Your task to perform on an android device: check out phone information Image 0: 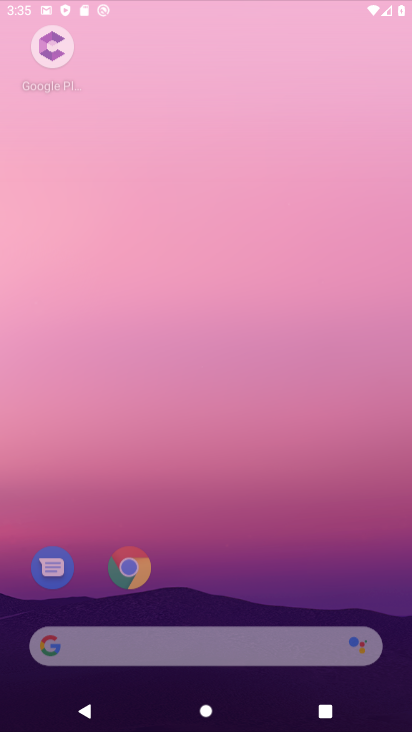
Step 0: press home button
Your task to perform on an android device: check out phone information Image 1: 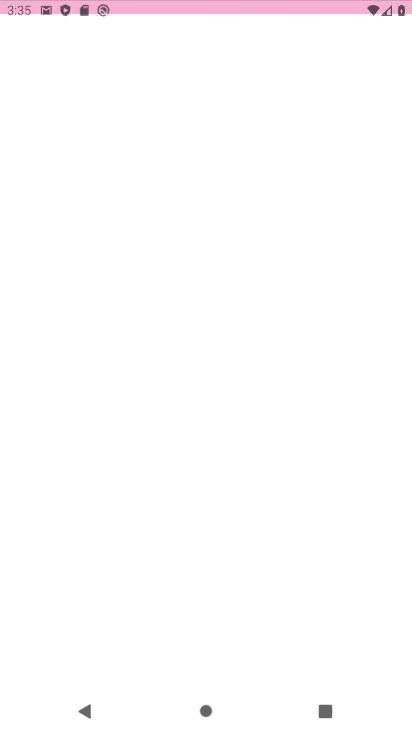
Step 1: drag from (396, 191) to (405, 273)
Your task to perform on an android device: check out phone information Image 2: 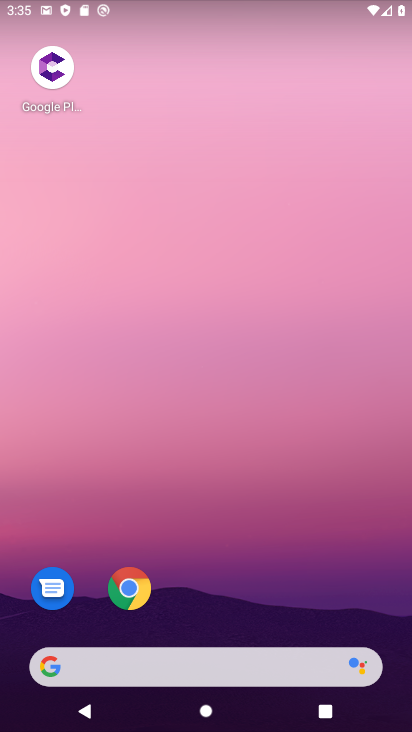
Step 2: drag from (389, 686) to (239, 53)
Your task to perform on an android device: check out phone information Image 3: 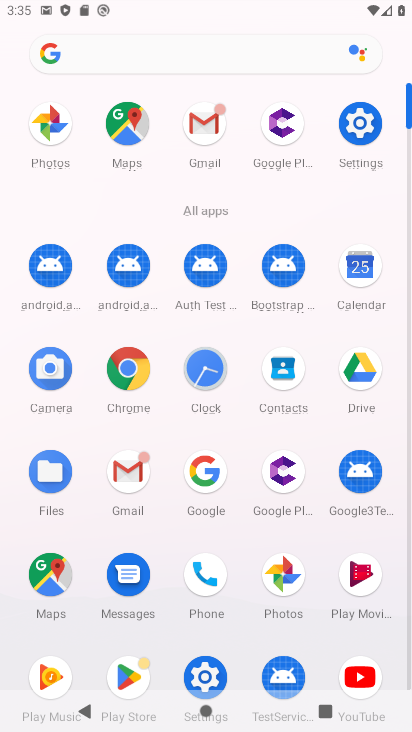
Step 3: click (201, 574)
Your task to perform on an android device: check out phone information Image 4: 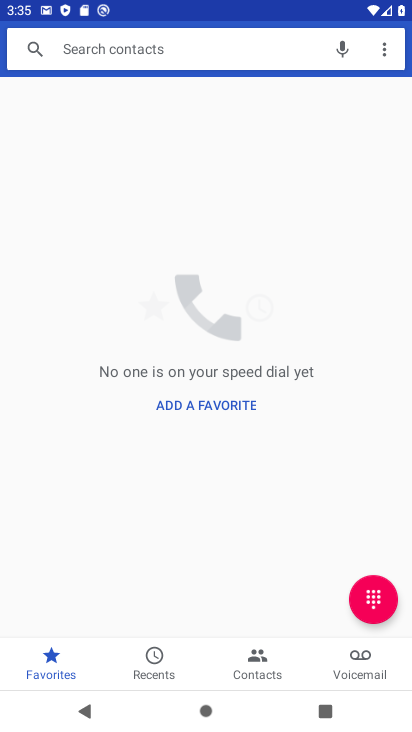
Step 4: press home button
Your task to perform on an android device: check out phone information Image 5: 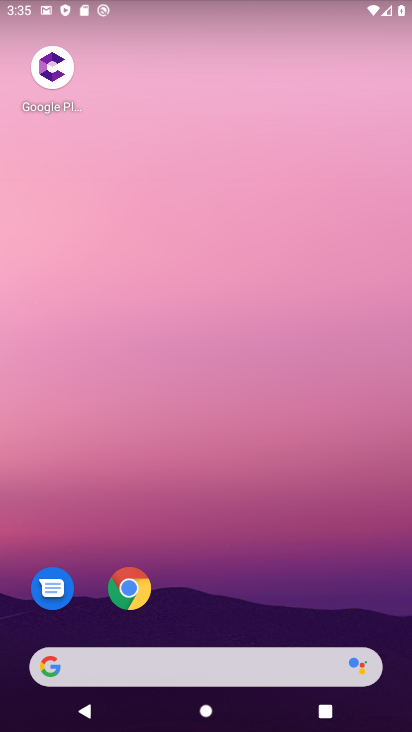
Step 5: drag from (310, 581) to (295, 92)
Your task to perform on an android device: check out phone information Image 6: 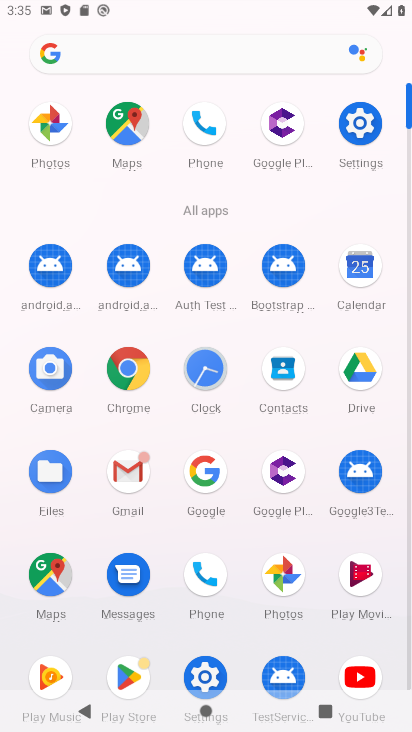
Step 6: click (219, 560)
Your task to perform on an android device: check out phone information Image 7: 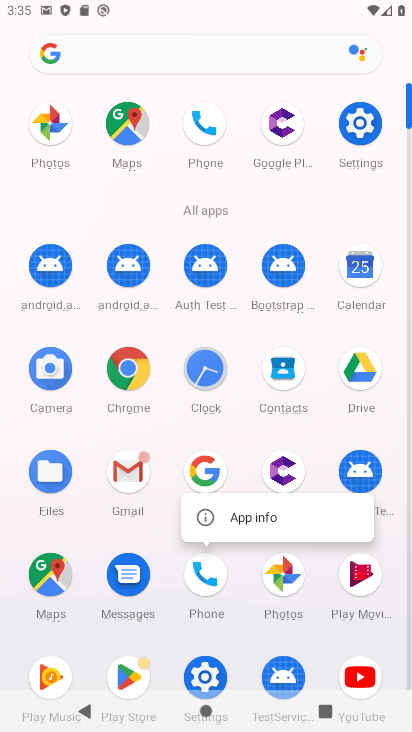
Step 7: click (206, 518)
Your task to perform on an android device: check out phone information Image 8: 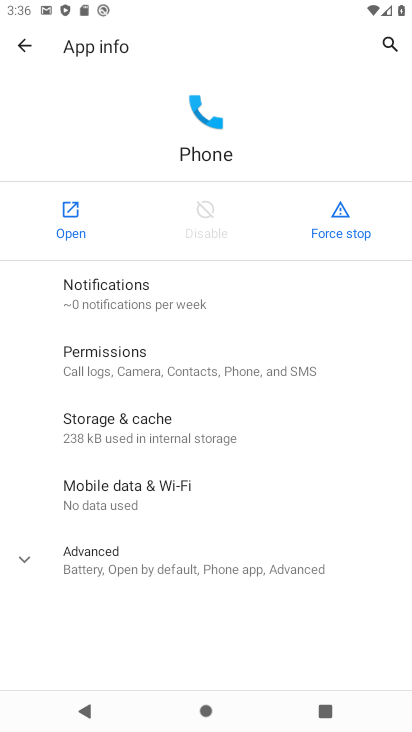
Step 8: task complete